Your task to perform on an android device: toggle show notifications on the lock screen Image 0: 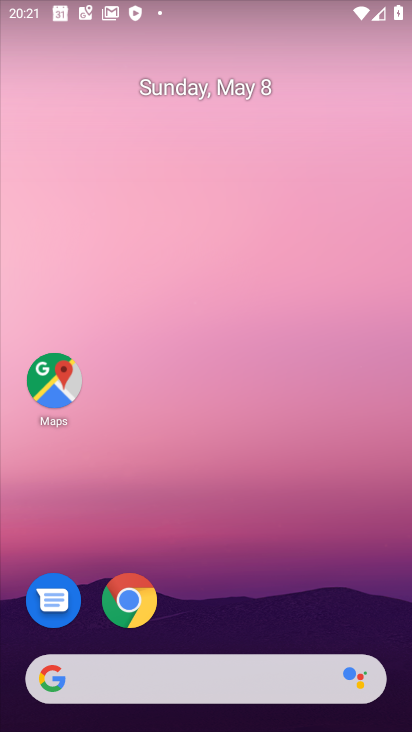
Step 0: drag from (288, 701) to (281, 304)
Your task to perform on an android device: toggle show notifications on the lock screen Image 1: 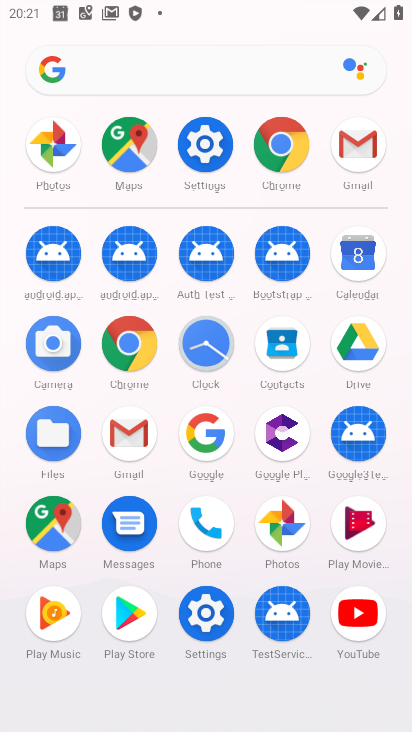
Step 1: click (214, 147)
Your task to perform on an android device: toggle show notifications on the lock screen Image 2: 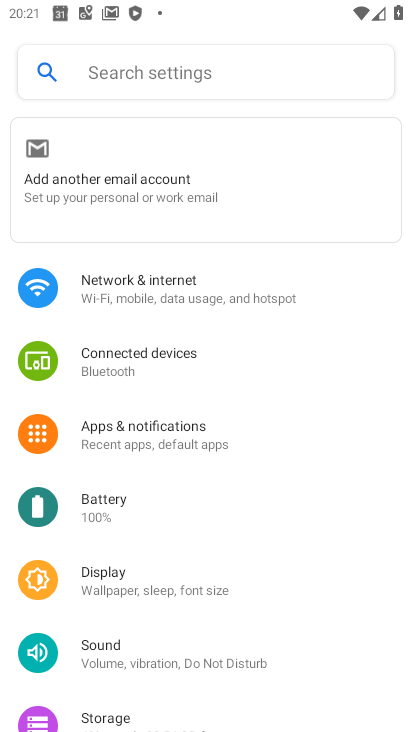
Step 2: click (177, 70)
Your task to perform on an android device: toggle show notifications on the lock screen Image 3: 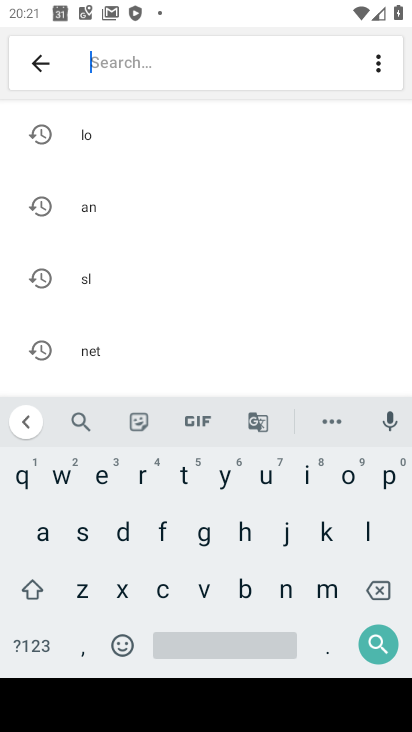
Step 3: click (288, 585)
Your task to perform on an android device: toggle show notifications on the lock screen Image 4: 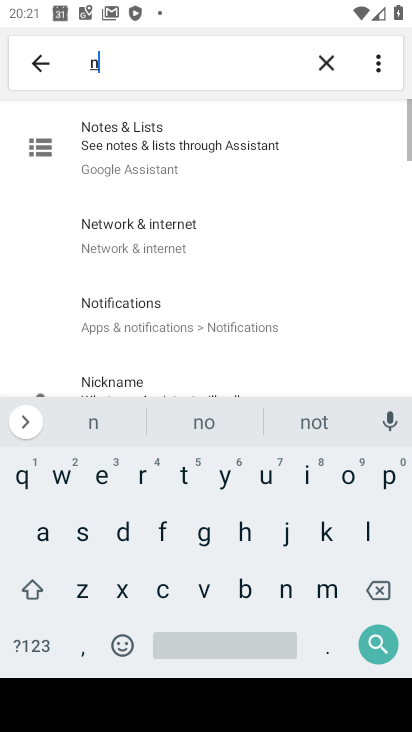
Step 4: click (350, 483)
Your task to perform on an android device: toggle show notifications on the lock screen Image 5: 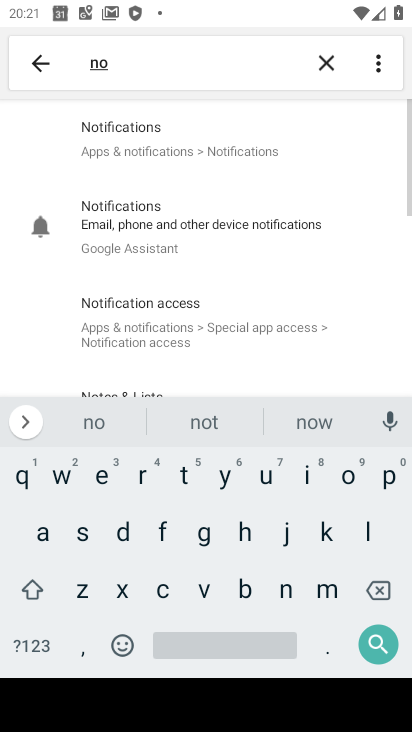
Step 5: click (145, 145)
Your task to perform on an android device: toggle show notifications on the lock screen Image 6: 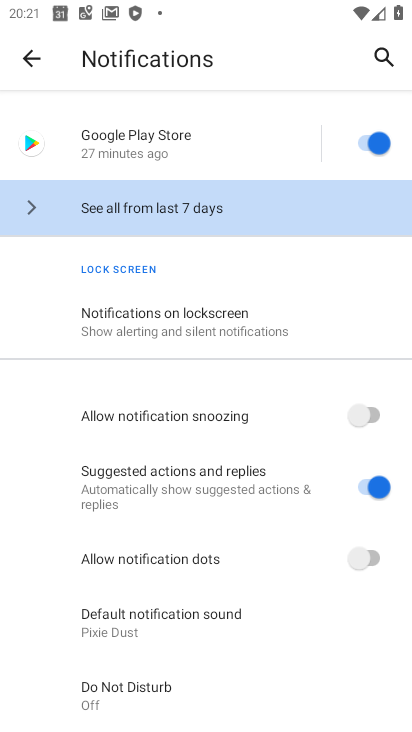
Step 6: click (154, 322)
Your task to perform on an android device: toggle show notifications on the lock screen Image 7: 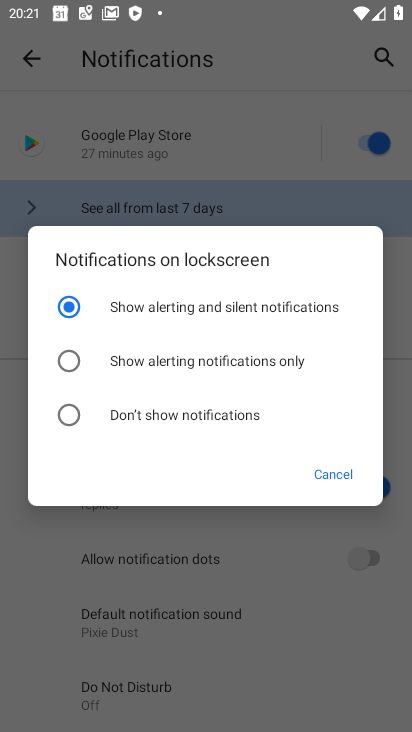
Step 7: task complete